Your task to perform on an android device: Go to battery settings Image 0: 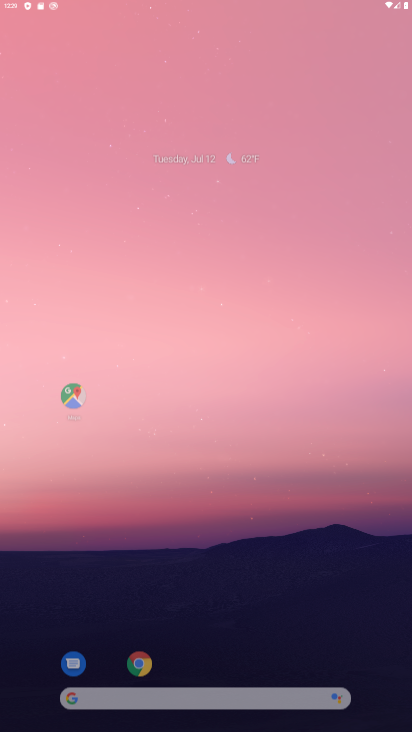
Step 0: press home button
Your task to perform on an android device: Go to battery settings Image 1: 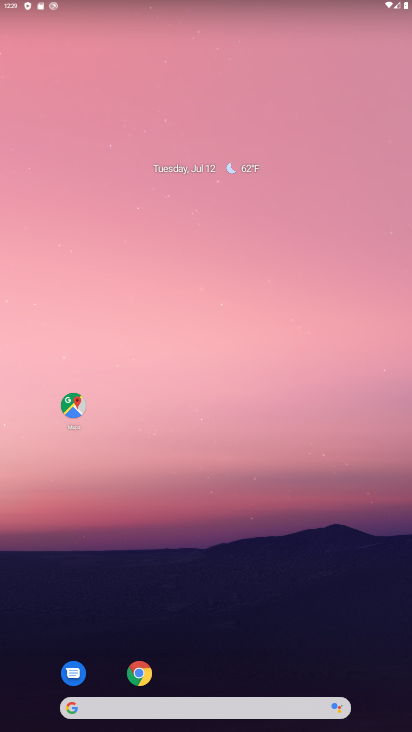
Step 1: drag from (232, 651) to (267, 0)
Your task to perform on an android device: Go to battery settings Image 2: 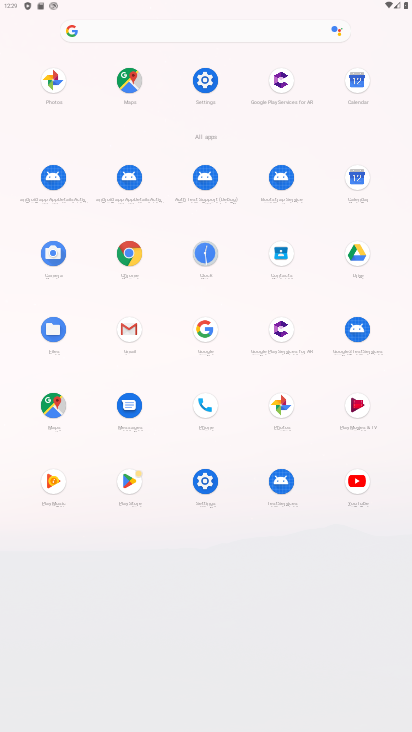
Step 2: click (201, 483)
Your task to perform on an android device: Go to battery settings Image 3: 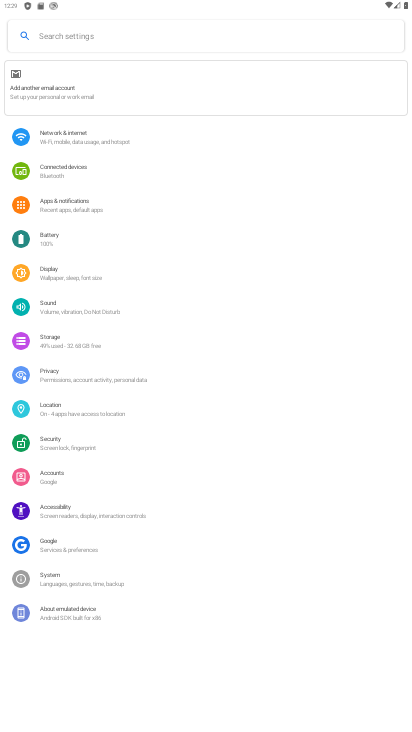
Step 3: click (60, 236)
Your task to perform on an android device: Go to battery settings Image 4: 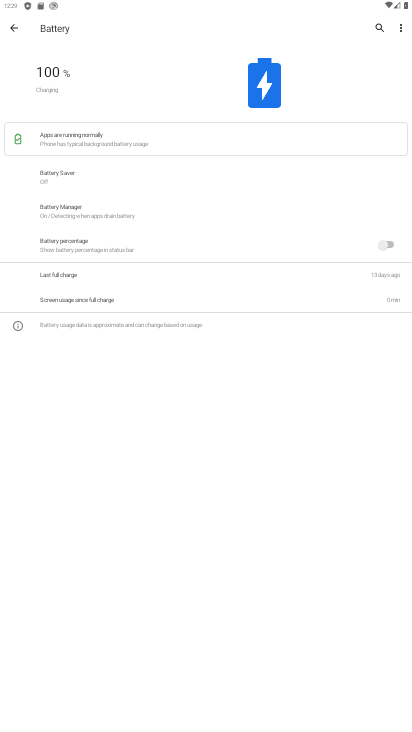
Step 4: task complete